Your task to perform on an android device: turn off javascript in the chrome app Image 0: 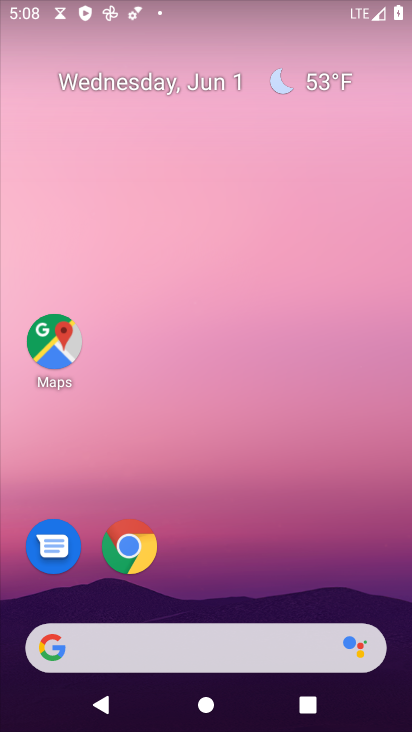
Step 0: drag from (312, 528) to (210, 4)
Your task to perform on an android device: turn off javascript in the chrome app Image 1: 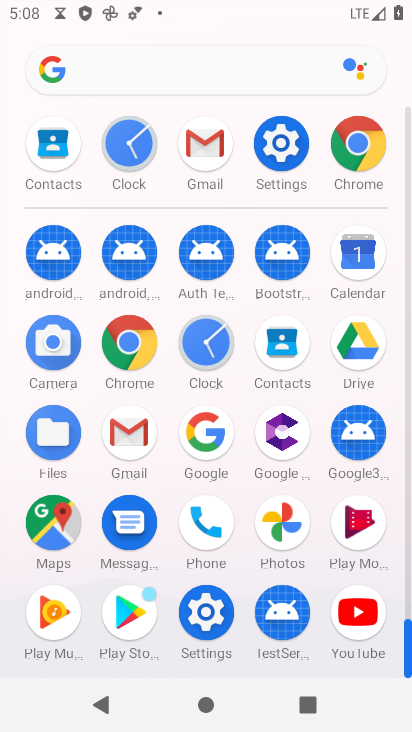
Step 1: drag from (10, 541) to (19, 206)
Your task to perform on an android device: turn off javascript in the chrome app Image 2: 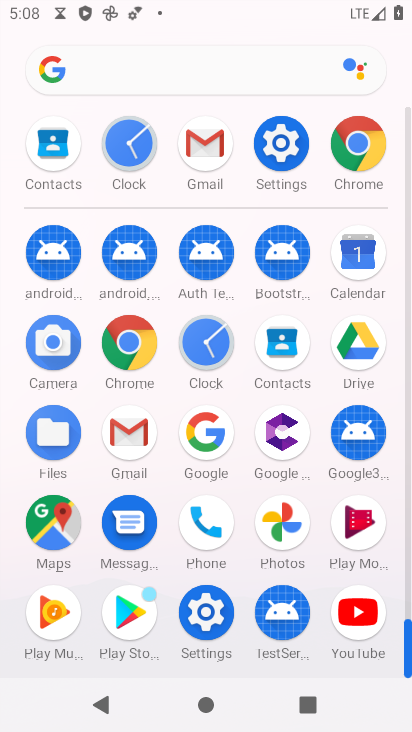
Step 2: click (125, 336)
Your task to perform on an android device: turn off javascript in the chrome app Image 3: 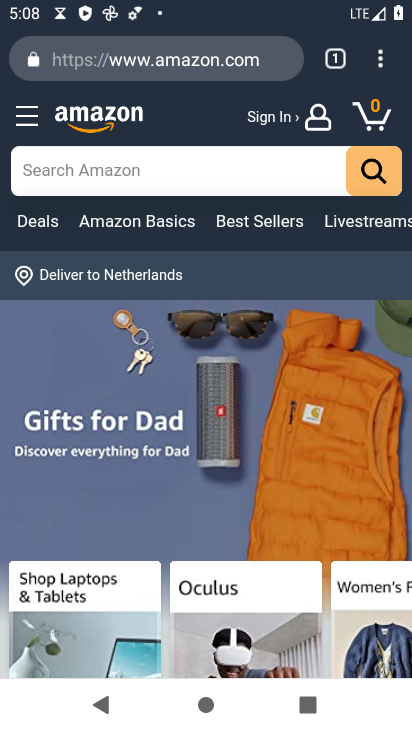
Step 3: drag from (380, 54) to (168, 553)
Your task to perform on an android device: turn off javascript in the chrome app Image 4: 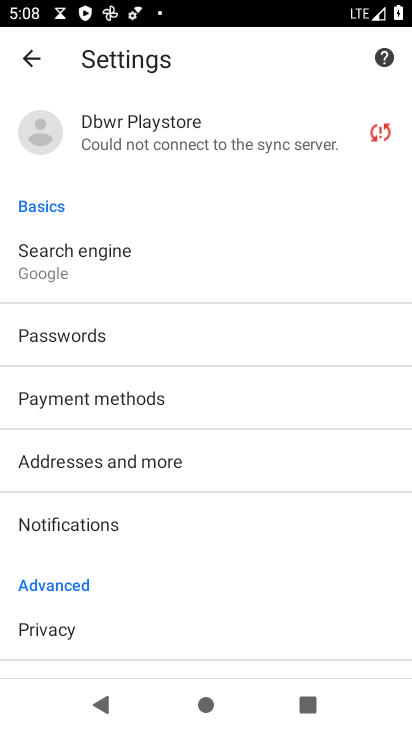
Step 4: drag from (190, 559) to (229, 204)
Your task to perform on an android device: turn off javascript in the chrome app Image 5: 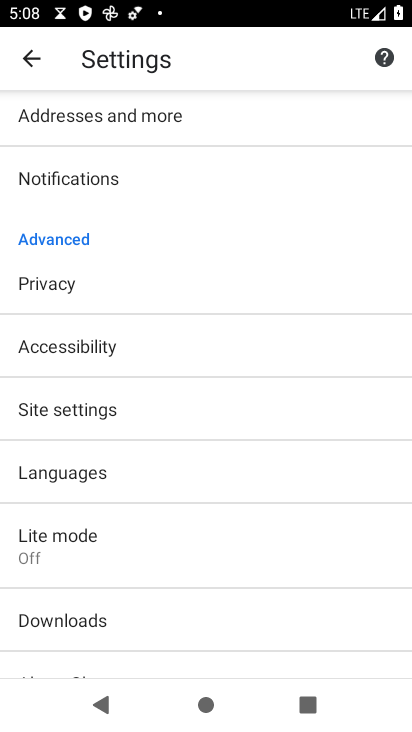
Step 5: click (107, 398)
Your task to perform on an android device: turn off javascript in the chrome app Image 6: 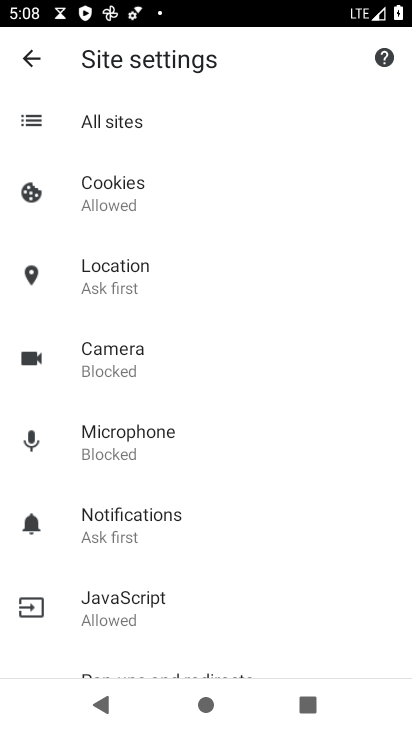
Step 6: drag from (218, 583) to (228, 242)
Your task to perform on an android device: turn off javascript in the chrome app Image 7: 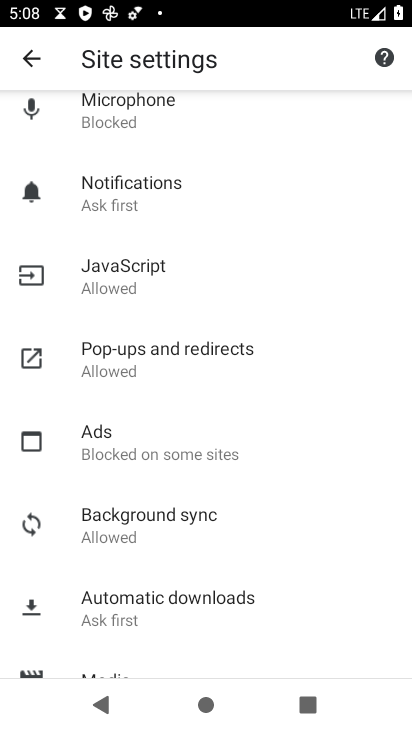
Step 7: click (133, 278)
Your task to perform on an android device: turn off javascript in the chrome app Image 8: 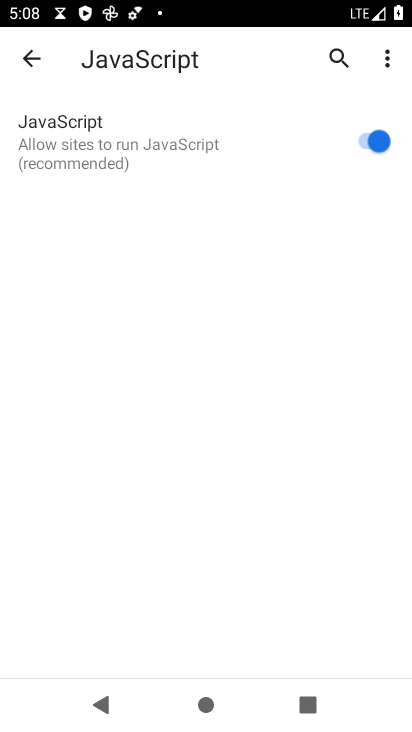
Step 8: click (361, 134)
Your task to perform on an android device: turn off javascript in the chrome app Image 9: 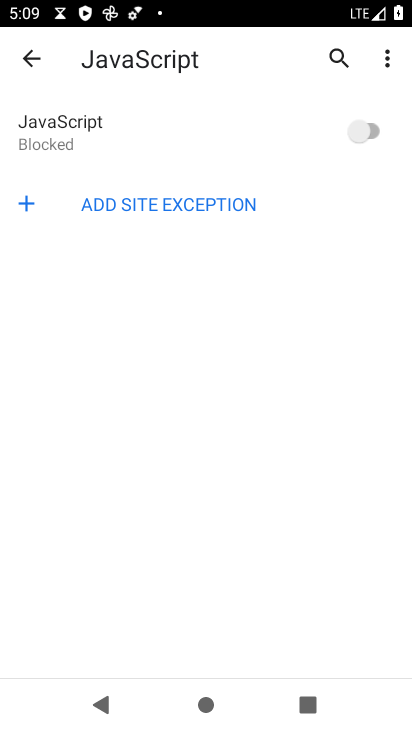
Step 9: task complete